Your task to perform on an android device: turn on airplane mode Image 0: 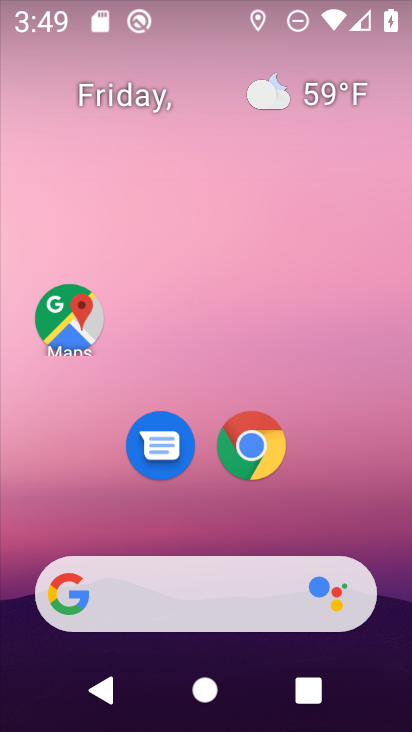
Step 0: drag from (395, 623) to (364, 153)
Your task to perform on an android device: turn on airplane mode Image 1: 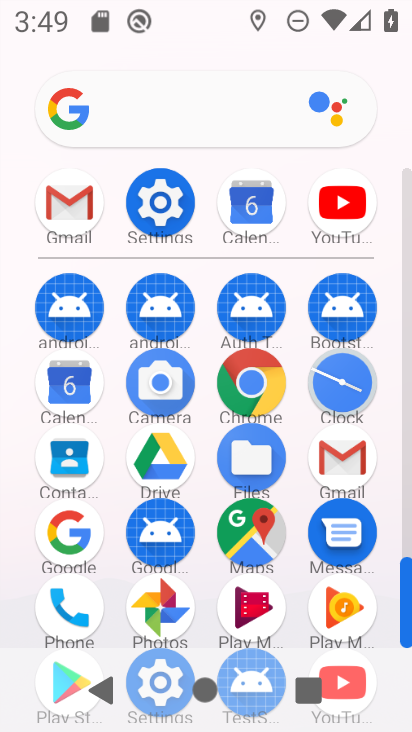
Step 1: drag from (404, 539) to (411, 402)
Your task to perform on an android device: turn on airplane mode Image 2: 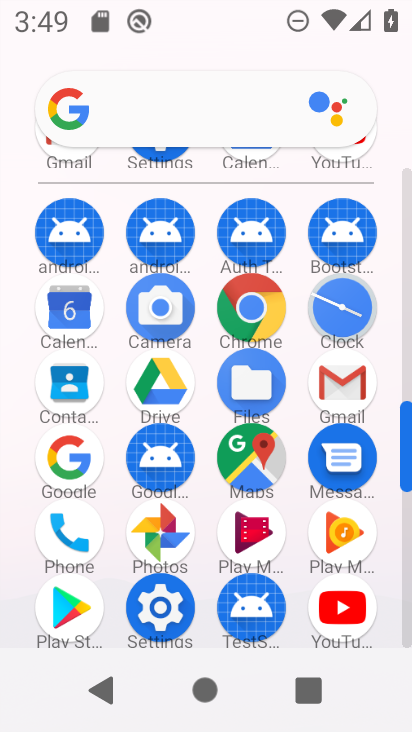
Step 2: click (153, 610)
Your task to perform on an android device: turn on airplane mode Image 3: 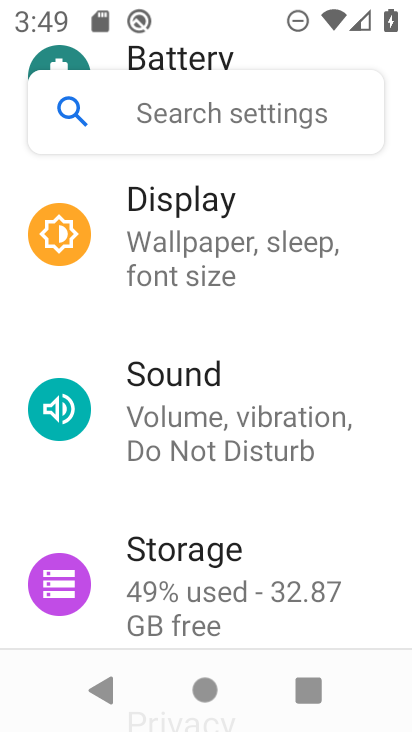
Step 3: drag from (356, 300) to (313, 478)
Your task to perform on an android device: turn on airplane mode Image 4: 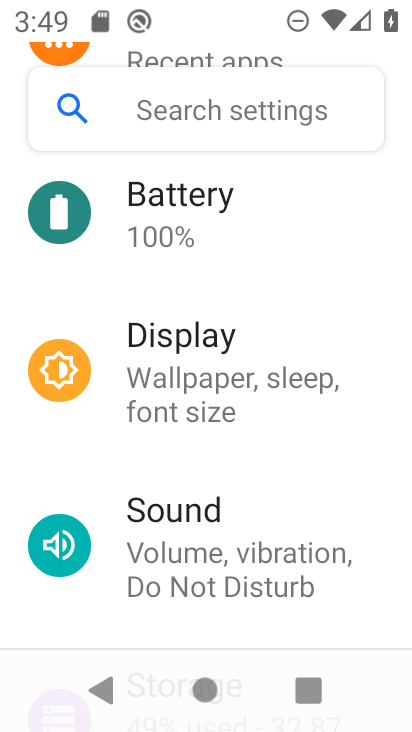
Step 4: drag from (314, 180) to (340, 436)
Your task to perform on an android device: turn on airplane mode Image 5: 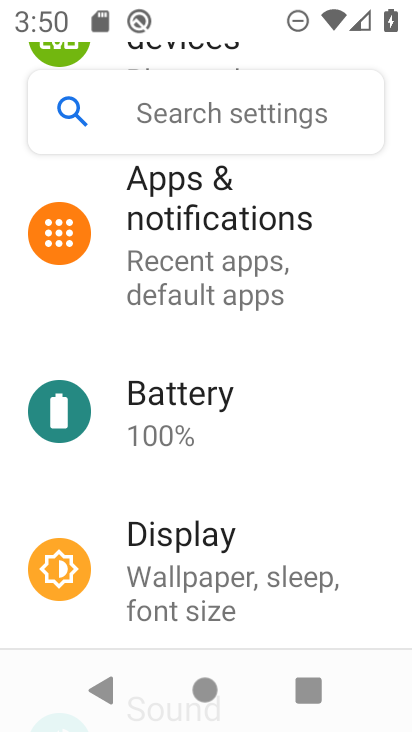
Step 5: drag from (330, 240) to (299, 489)
Your task to perform on an android device: turn on airplane mode Image 6: 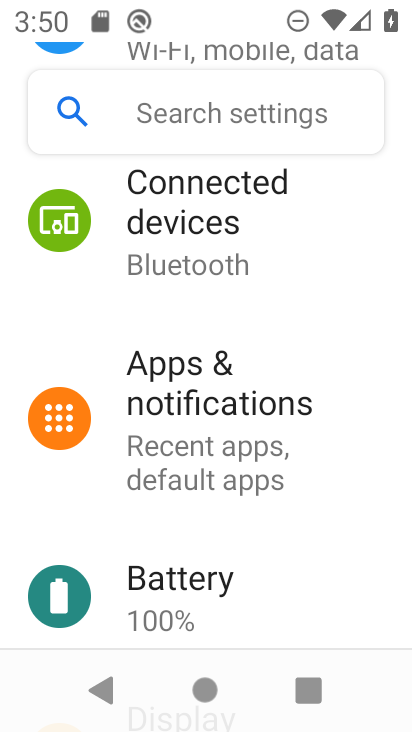
Step 6: drag from (315, 246) to (307, 537)
Your task to perform on an android device: turn on airplane mode Image 7: 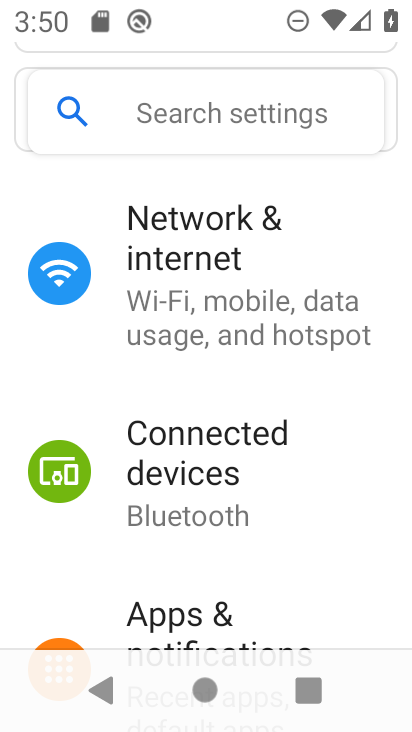
Step 7: click (188, 266)
Your task to perform on an android device: turn on airplane mode Image 8: 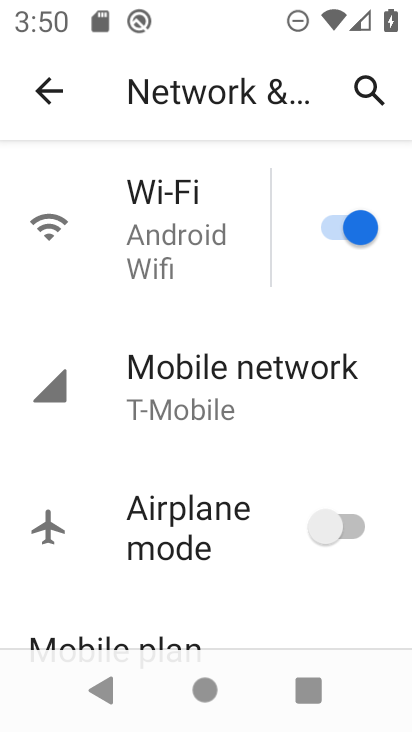
Step 8: click (349, 525)
Your task to perform on an android device: turn on airplane mode Image 9: 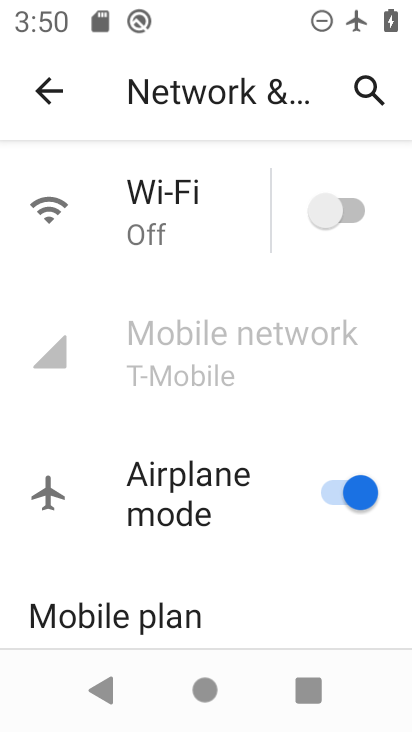
Step 9: task complete